Your task to perform on an android device: set the timer Image 0: 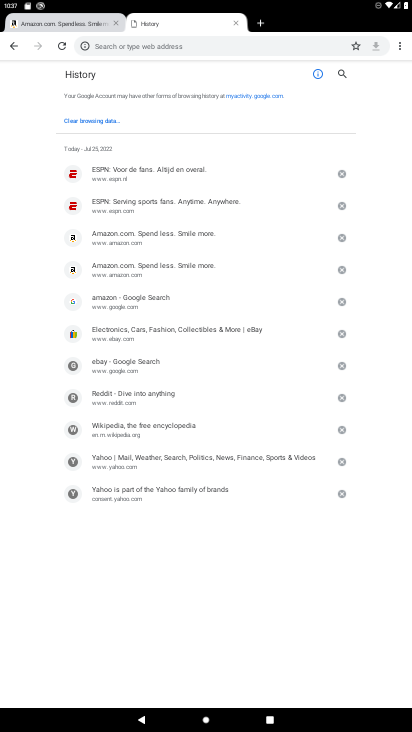
Step 0: press home button
Your task to perform on an android device: set the timer Image 1: 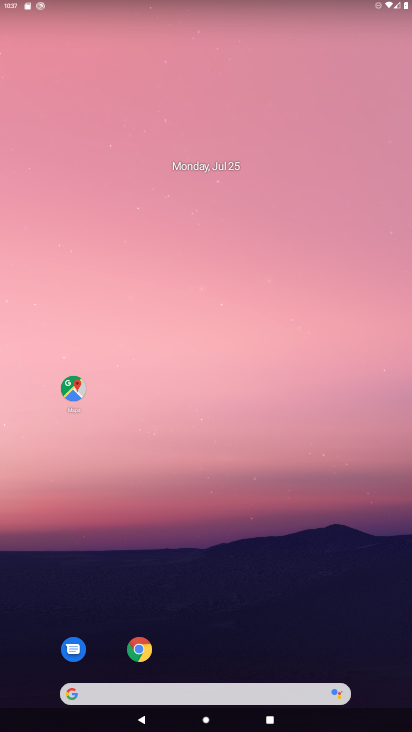
Step 1: drag from (351, 634) to (346, 126)
Your task to perform on an android device: set the timer Image 2: 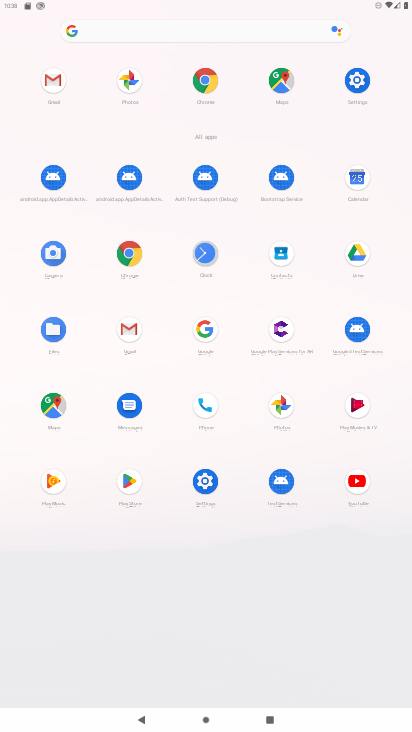
Step 2: click (207, 254)
Your task to perform on an android device: set the timer Image 3: 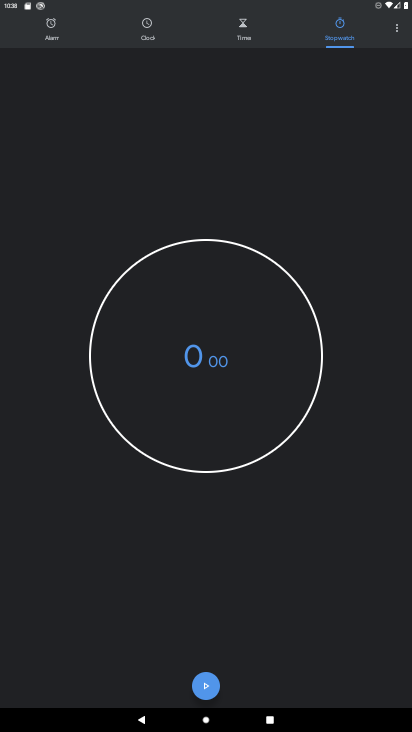
Step 3: click (241, 31)
Your task to perform on an android device: set the timer Image 4: 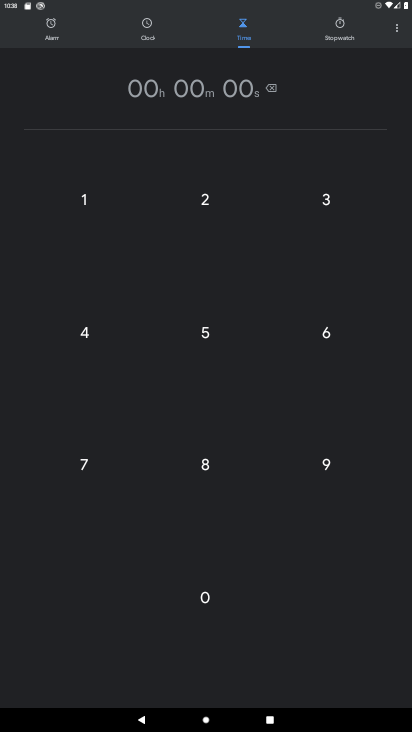
Step 4: click (83, 200)
Your task to perform on an android device: set the timer Image 5: 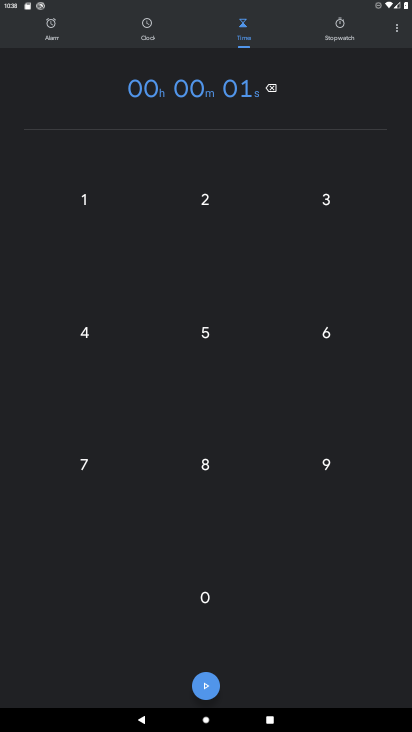
Step 5: click (326, 206)
Your task to perform on an android device: set the timer Image 6: 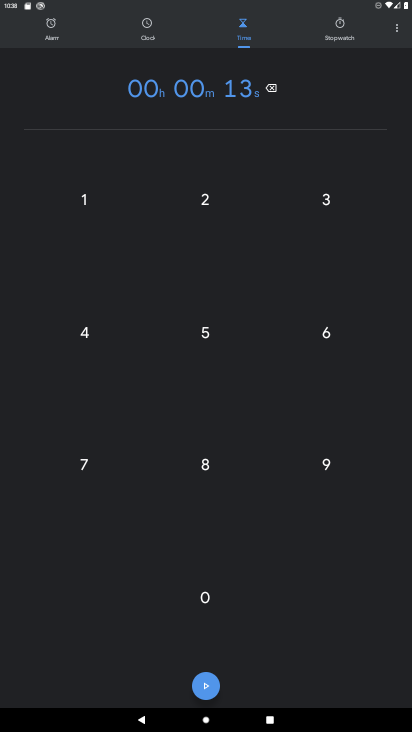
Step 6: click (203, 604)
Your task to perform on an android device: set the timer Image 7: 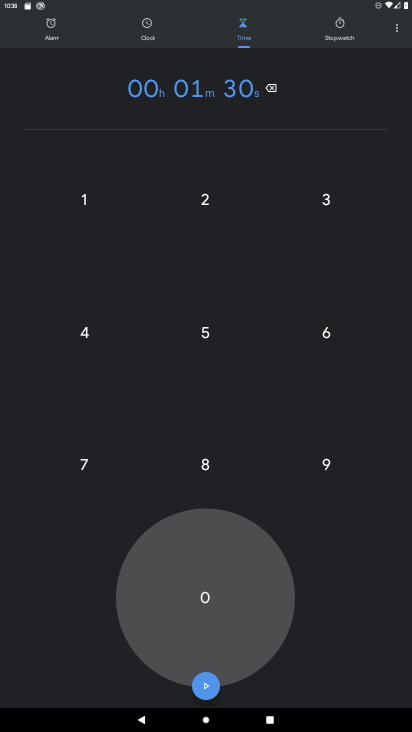
Step 7: click (203, 604)
Your task to perform on an android device: set the timer Image 8: 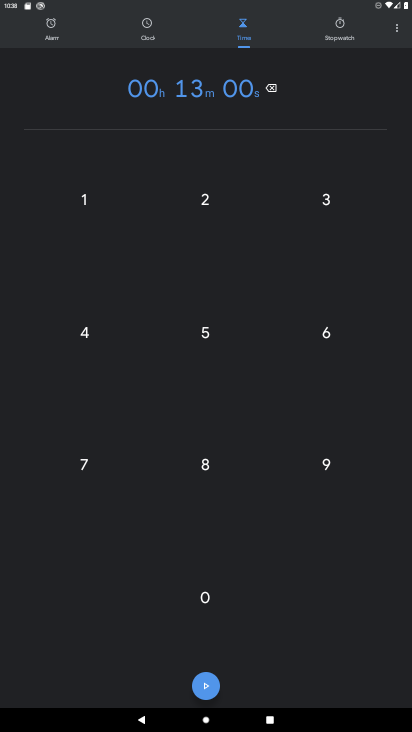
Step 8: click (203, 604)
Your task to perform on an android device: set the timer Image 9: 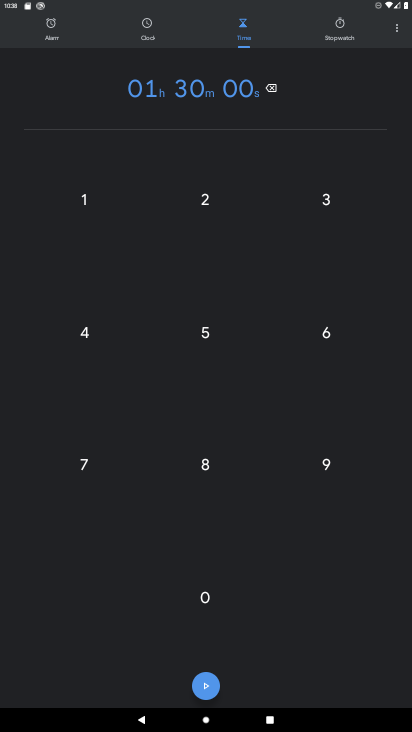
Step 9: task complete